Your task to perform on an android device: Open ESPN.com Image 0: 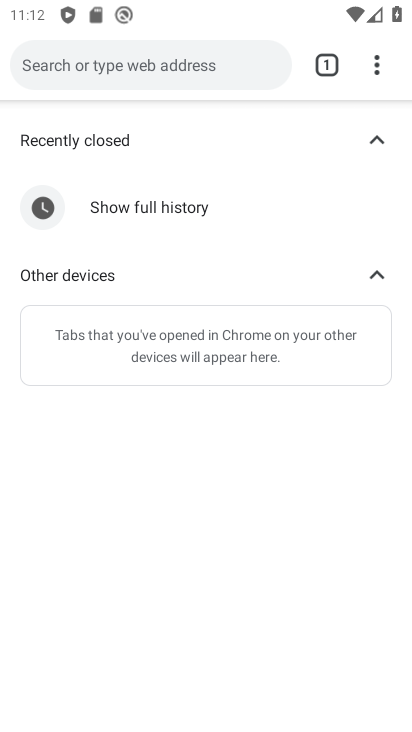
Step 0: press home button
Your task to perform on an android device: Open ESPN.com Image 1: 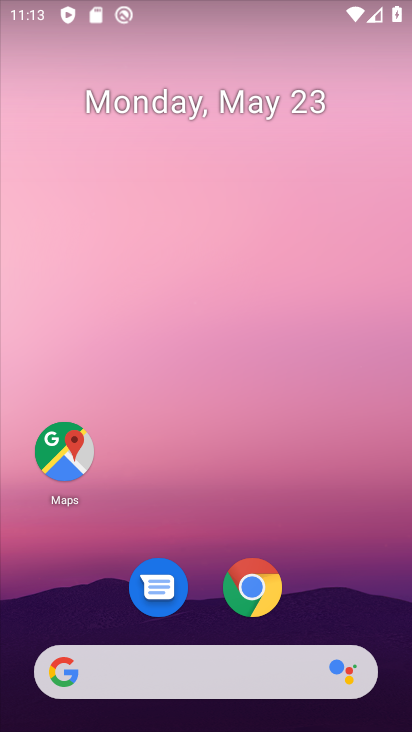
Step 1: drag from (342, 604) to (288, 204)
Your task to perform on an android device: Open ESPN.com Image 2: 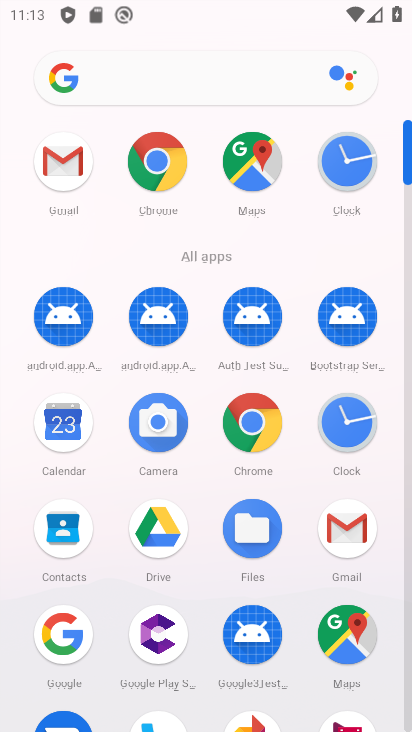
Step 2: click (168, 168)
Your task to perform on an android device: Open ESPN.com Image 3: 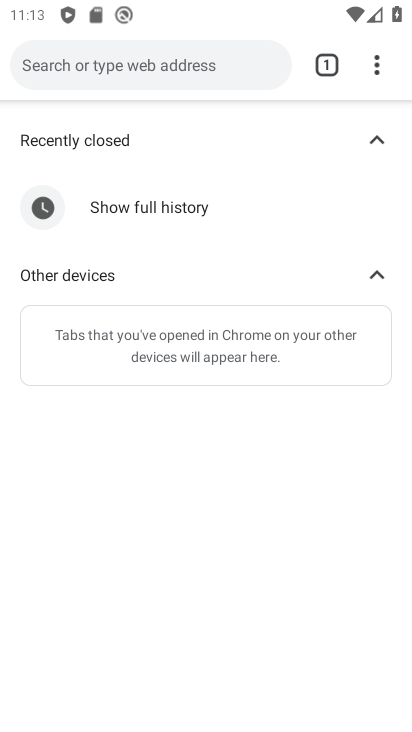
Step 3: click (169, 74)
Your task to perform on an android device: Open ESPN.com Image 4: 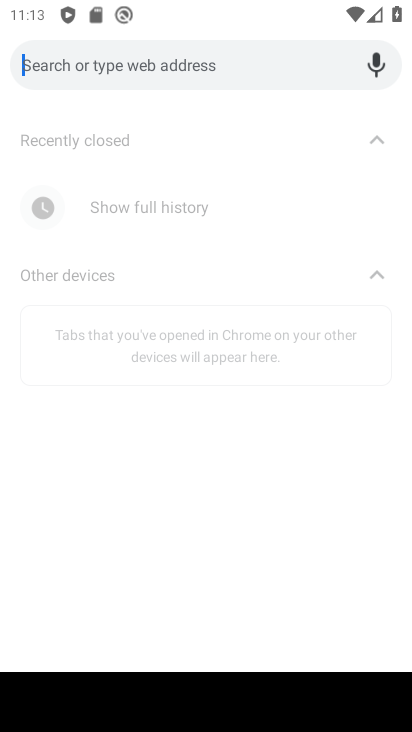
Step 4: type "espn"
Your task to perform on an android device: Open ESPN.com Image 5: 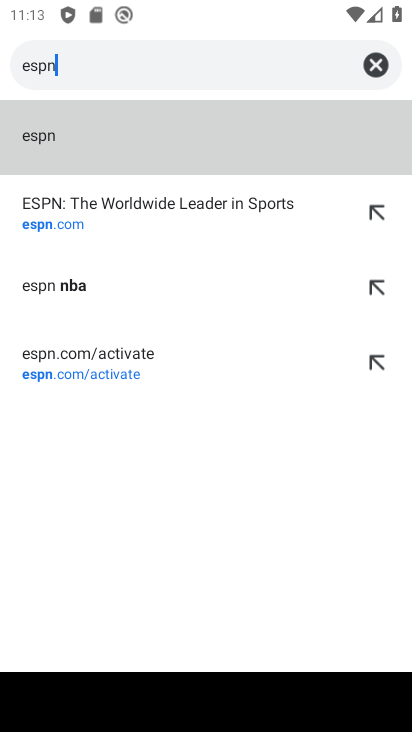
Step 5: click (57, 220)
Your task to perform on an android device: Open ESPN.com Image 6: 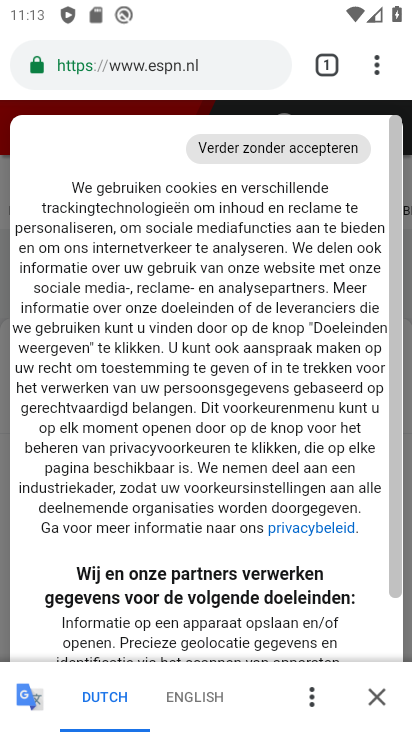
Step 6: drag from (217, 631) to (235, 269)
Your task to perform on an android device: Open ESPN.com Image 7: 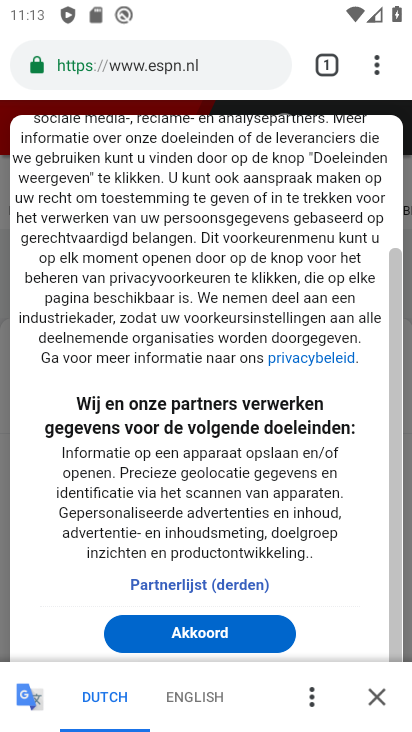
Step 7: click (261, 636)
Your task to perform on an android device: Open ESPN.com Image 8: 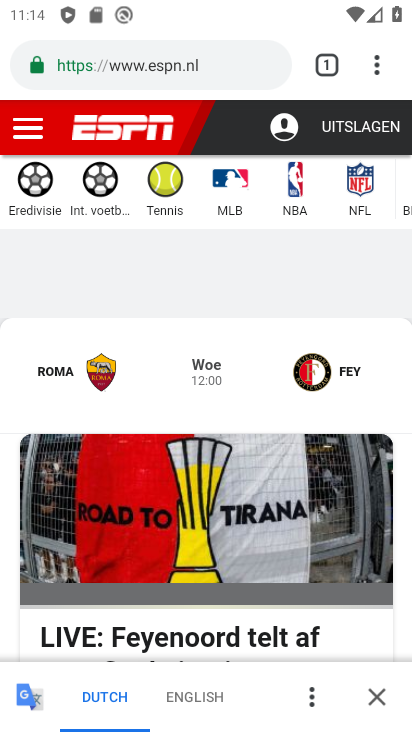
Step 8: task complete